Your task to perform on an android device: change timer sound Image 0: 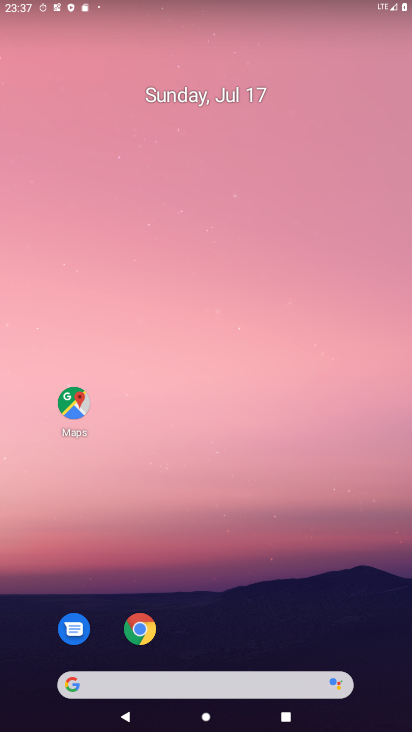
Step 0: drag from (228, 689) to (223, 65)
Your task to perform on an android device: change timer sound Image 1: 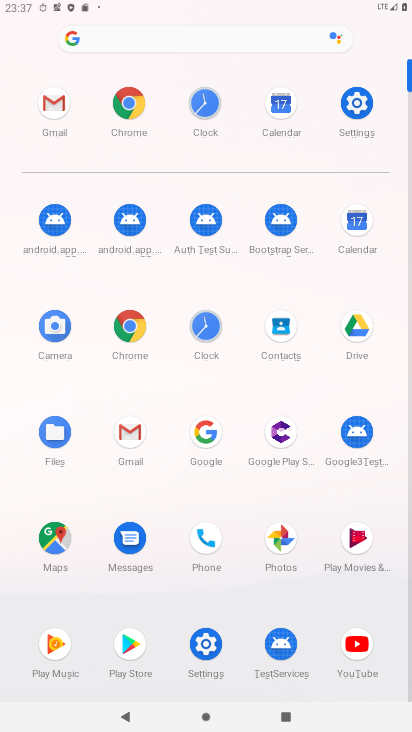
Step 1: click (208, 328)
Your task to perform on an android device: change timer sound Image 2: 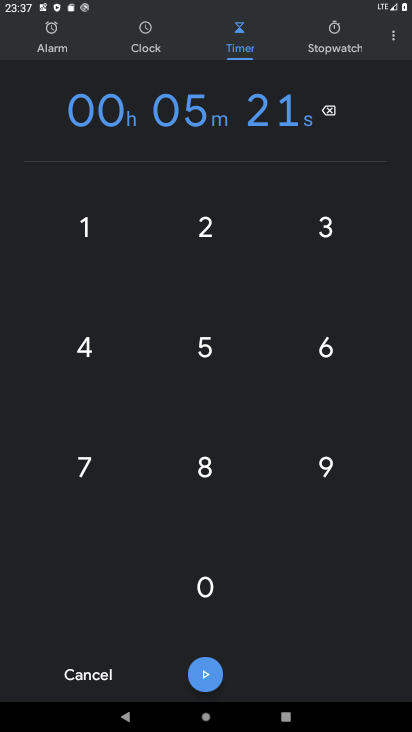
Step 2: click (390, 41)
Your task to perform on an android device: change timer sound Image 3: 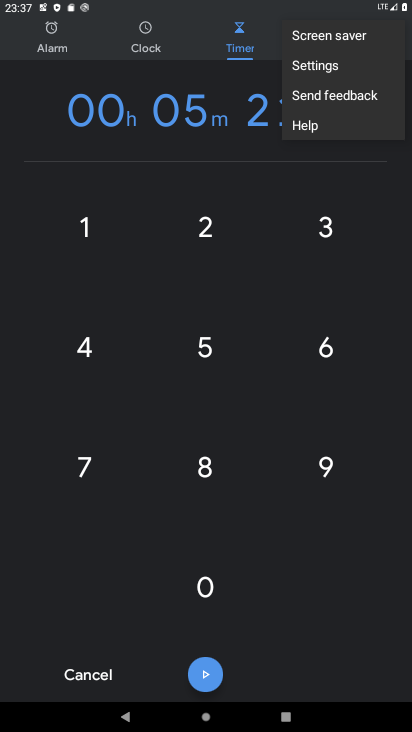
Step 3: click (319, 63)
Your task to perform on an android device: change timer sound Image 4: 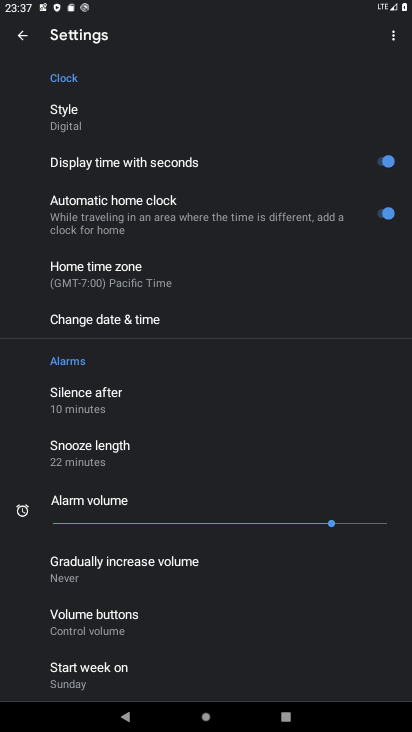
Step 4: drag from (176, 638) to (217, 362)
Your task to perform on an android device: change timer sound Image 5: 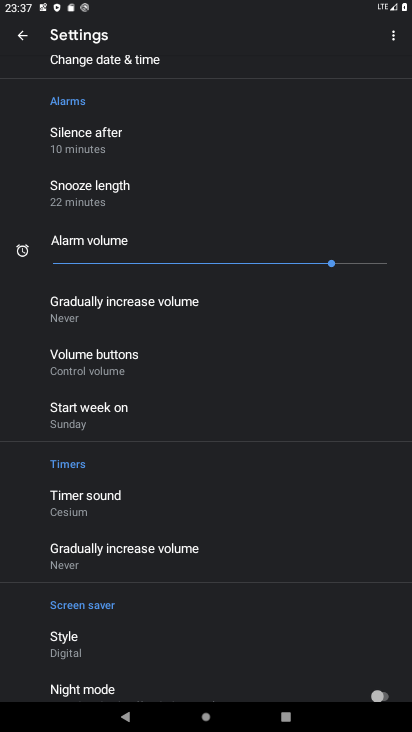
Step 5: click (104, 496)
Your task to perform on an android device: change timer sound Image 6: 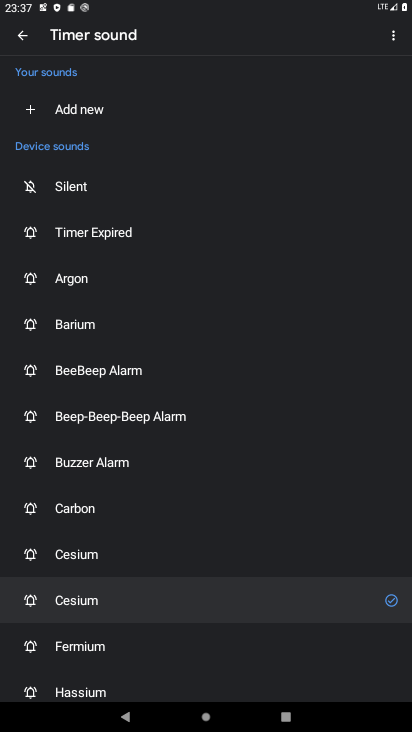
Step 6: click (74, 328)
Your task to perform on an android device: change timer sound Image 7: 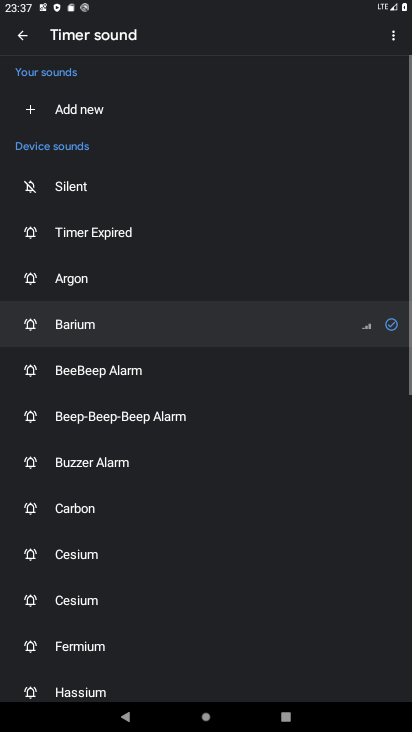
Step 7: task complete